Your task to perform on an android device: Open settings on Google Maps Image 0: 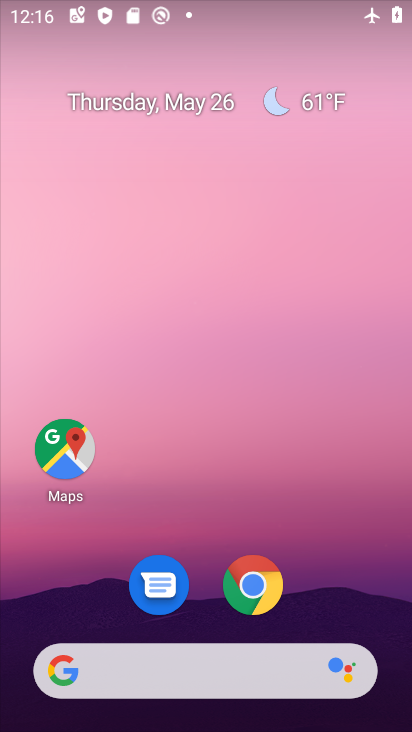
Step 0: drag from (214, 480) to (265, 127)
Your task to perform on an android device: Open settings on Google Maps Image 1: 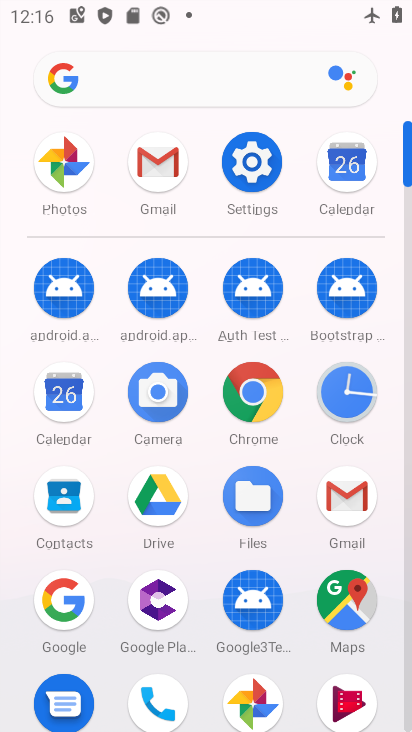
Step 1: click (341, 591)
Your task to perform on an android device: Open settings on Google Maps Image 2: 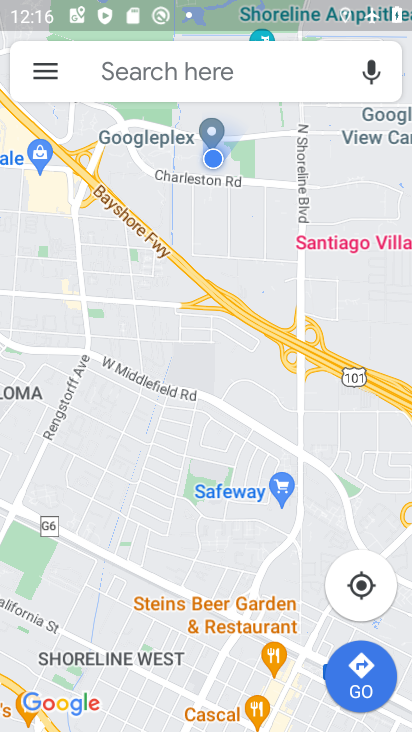
Step 2: click (49, 71)
Your task to perform on an android device: Open settings on Google Maps Image 3: 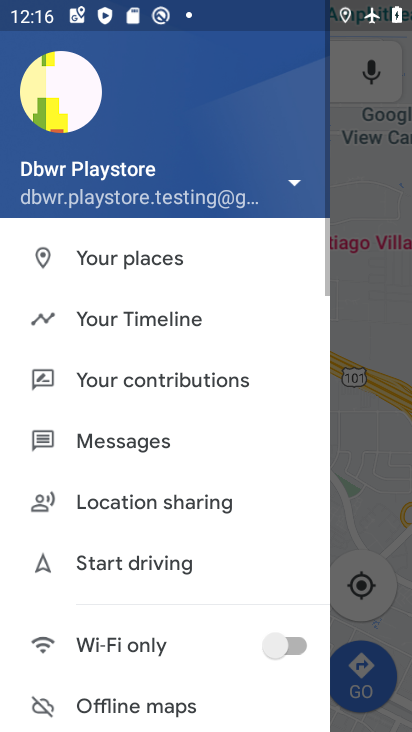
Step 3: drag from (184, 588) to (202, 69)
Your task to perform on an android device: Open settings on Google Maps Image 4: 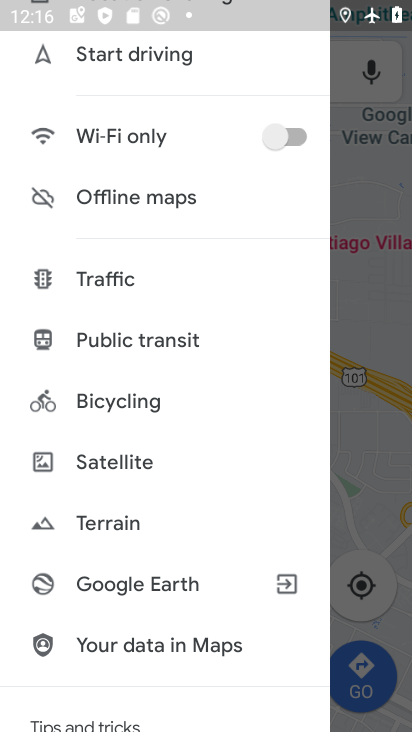
Step 4: drag from (189, 418) to (199, 142)
Your task to perform on an android device: Open settings on Google Maps Image 5: 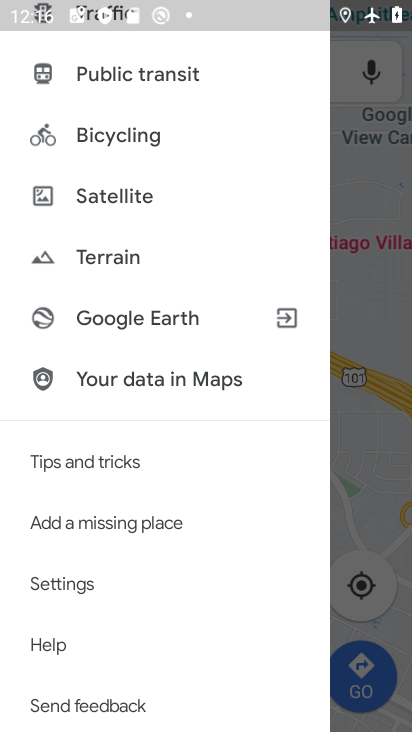
Step 5: click (111, 575)
Your task to perform on an android device: Open settings on Google Maps Image 6: 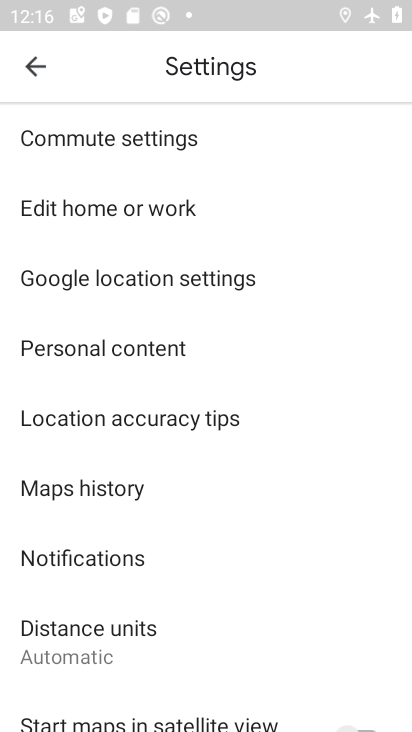
Step 6: task complete